Your task to perform on an android device: Open calendar and show me the second week of next month Image 0: 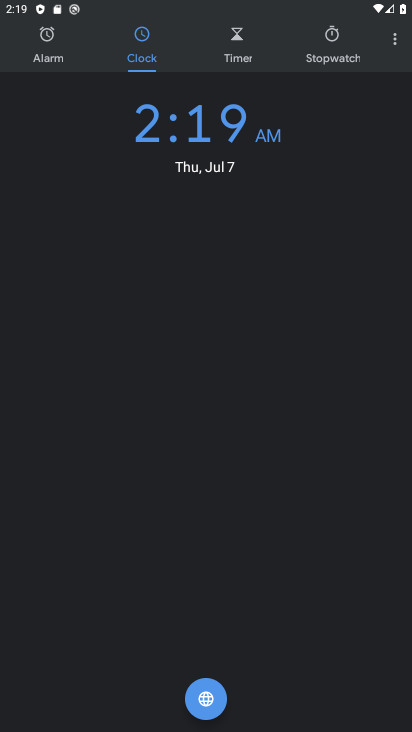
Step 0: press home button
Your task to perform on an android device: Open calendar and show me the second week of next month Image 1: 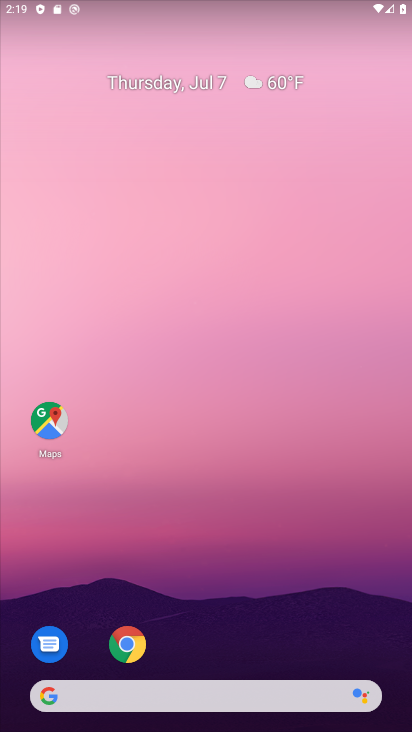
Step 1: drag from (202, 692) to (317, 278)
Your task to perform on an android device: Open calendar and show me the second week of next month Image 2: 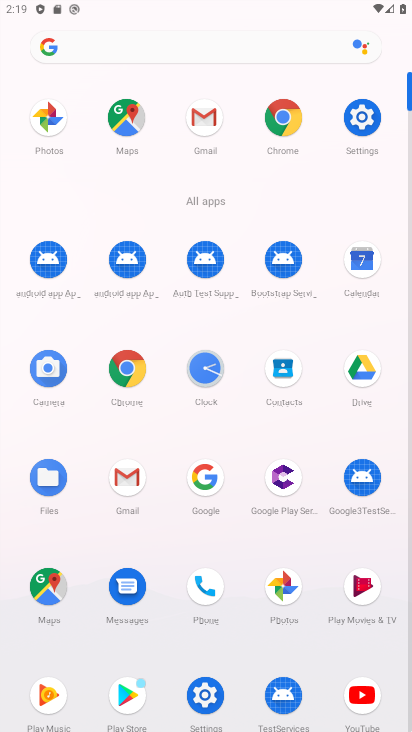
Step 2: click (350, 268)
Your task to perform on an android device: Open calendar and show me the second week of next month Image 3: 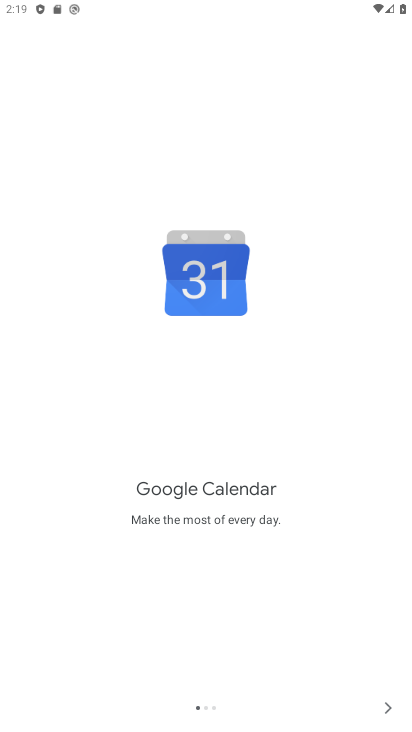
Step 3: click (386, 701)
Your task to perform on an android device: Open calendar and show me the second week of next month Image 4: 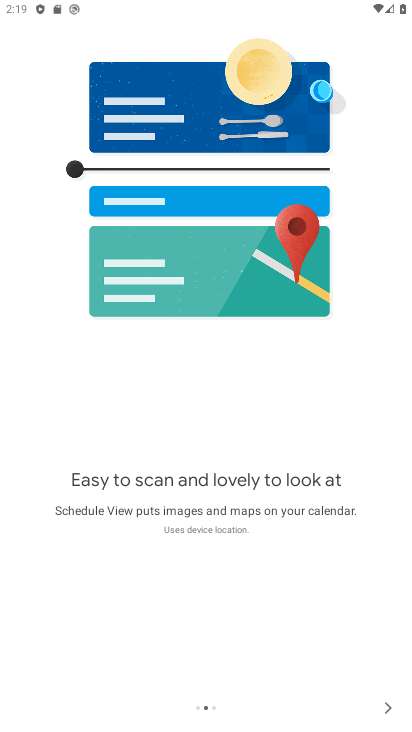
Step 4: click (386, 711)
Your task to perform on an android device: Open calendar and show me the second week of next month Image 5: 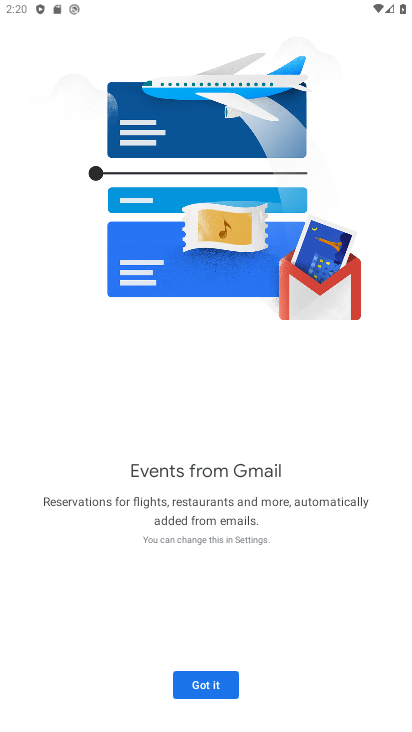
Step 5: click (204, 690)
Your task to perform on an android device: Open calendar and show me the second week of next month Image 6: 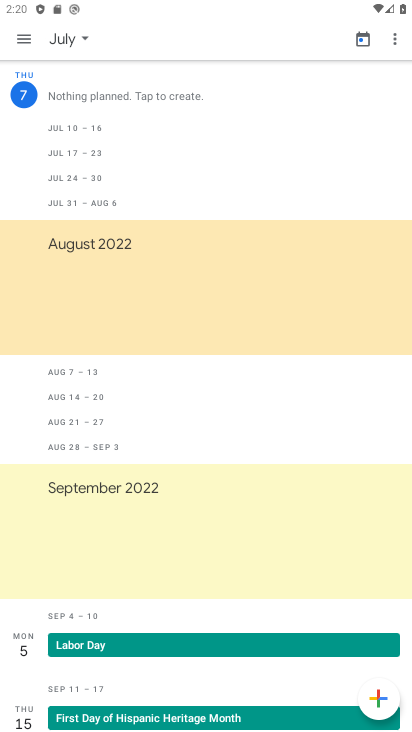
Step 6: click (19, 42)
Your task to perform on an android device: Open calendar and show me the second week of next month Image 7: 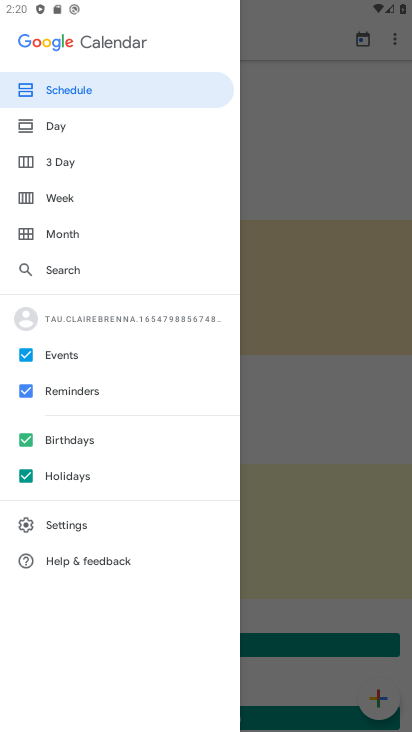
Step 7: click (66, 231)
Your task to perform on an android device: Open calendar and show me the second week of next month Image 8: 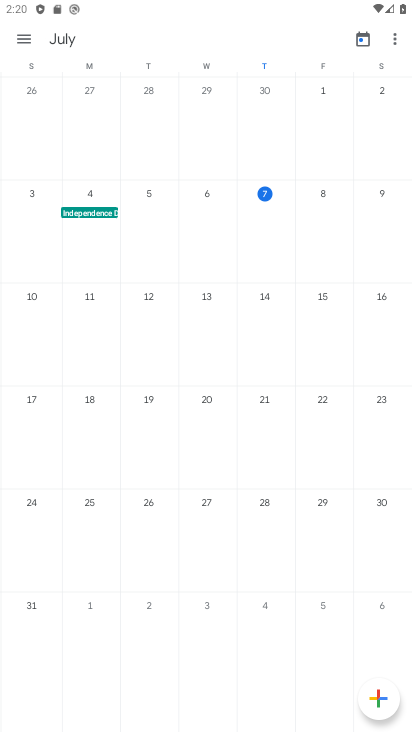
Step 8: task complete